Your task to perform on an android device: turn on bluetooth scan Image 0: 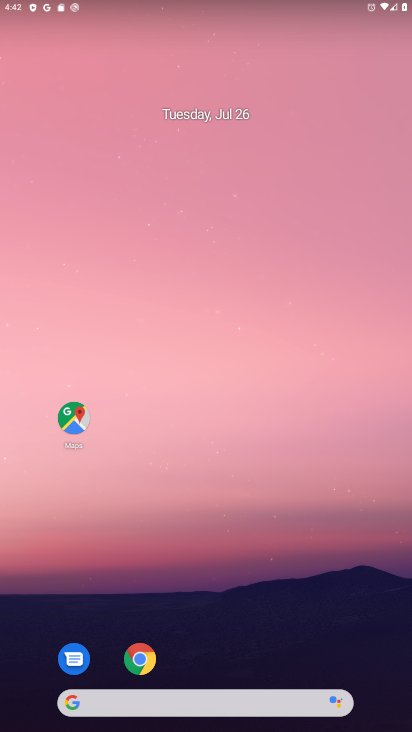
Step 0: drag from (227, 668) to (250, 84)
Your task to perform on an android device: turn on bluetooth scan Image 1: 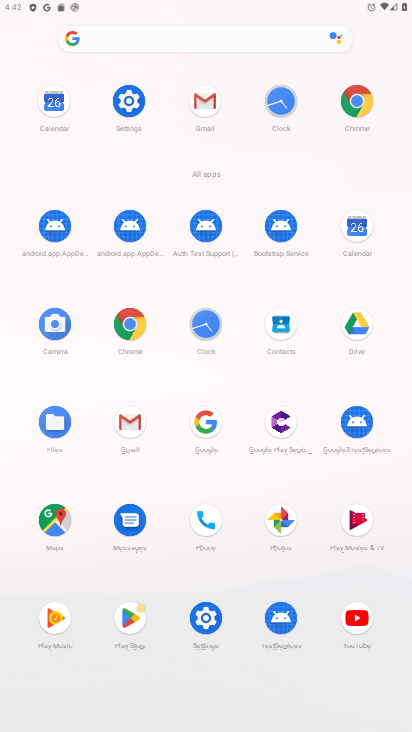
Step 1: click (126, 97)
Your task to perform on an android device: turn on bluetooth scan Image 2: 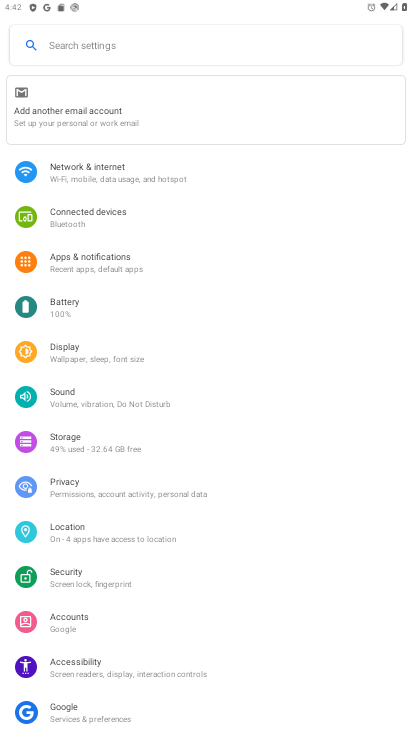
Step 2: click (91, 527)
Your task to perform on an android device: turn on bluetooth scan Image 3: 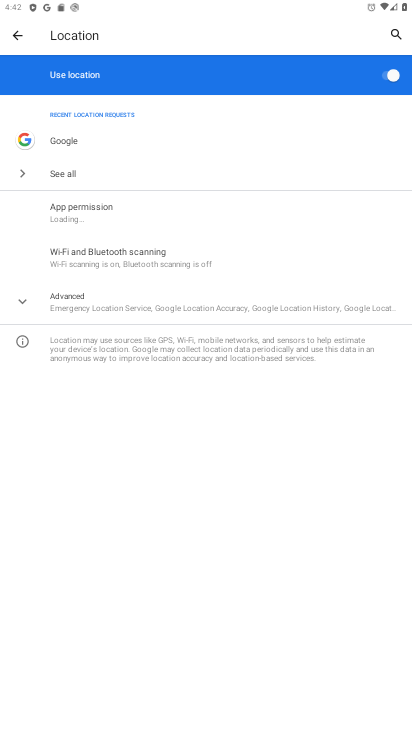
Step 3: click (149, 248)
Your task to perform on an android device: turn on bluetooth scan Image 4: 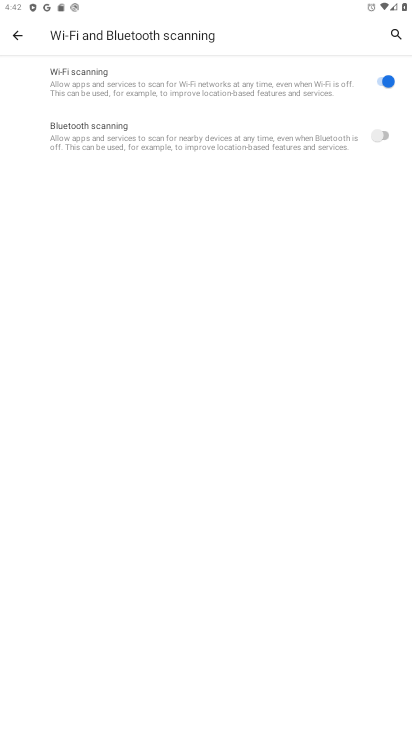
Step 4: click (382, 134)
Your task to perform on an android device: turn on bluetooth scan Image 5: 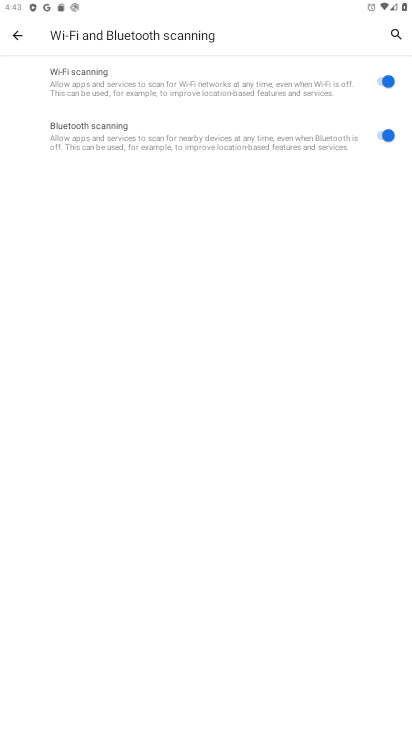
Step 5: task complete